Your task to perform on an android device: show emergency info Image 0: 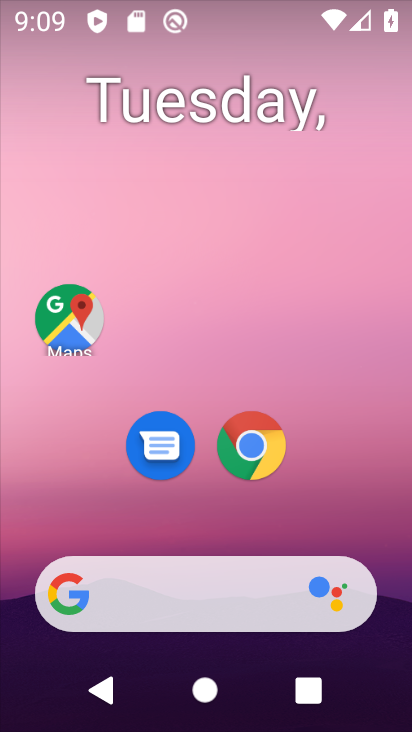
Step 0: drag from (99, 548) to (208, 174)
Your task to perform on an android device: show emergency info Image 1: 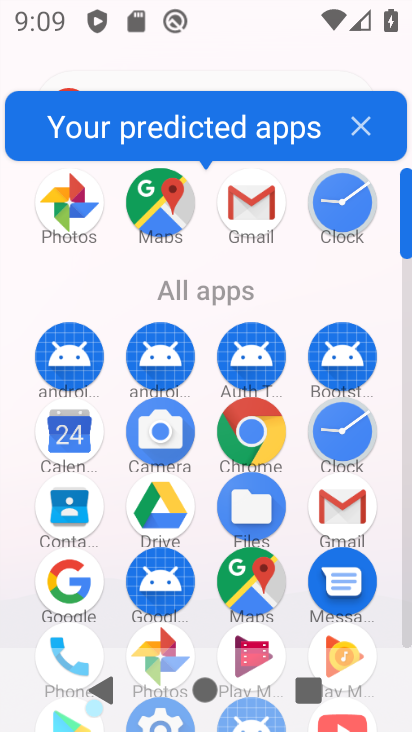
Step 1: drag from (160, 616) to (292, 283)
Your task to perform on an android device: show emergency info Image 2: 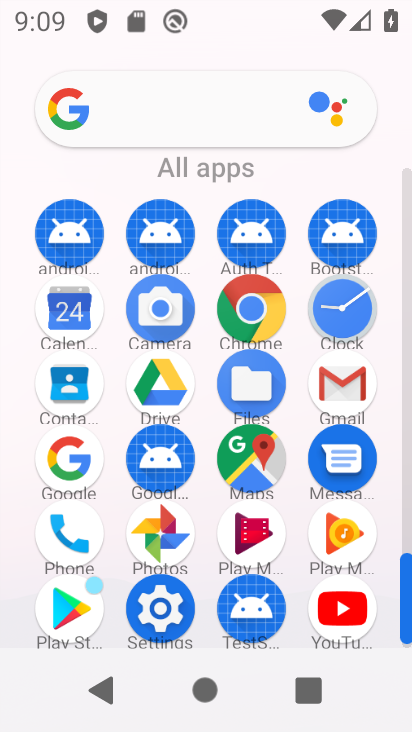
Step 2: click (170, 619)
Your task to perform on an android device: show emergency info Image 3: 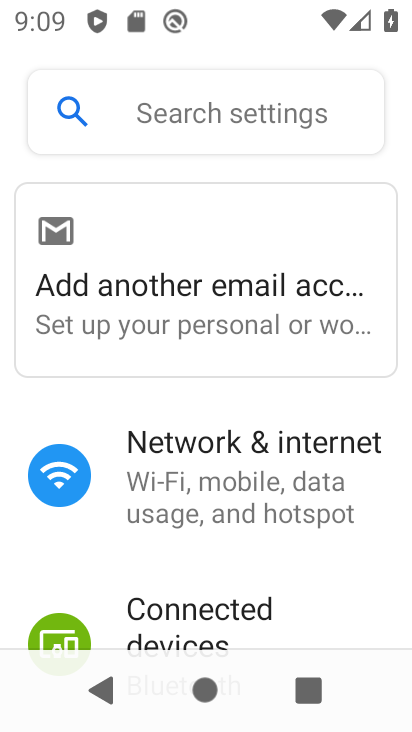
Step 3: drag from (190, 574) to (357, 82)
Your task to perform on an android device: show emergency info Image 4: 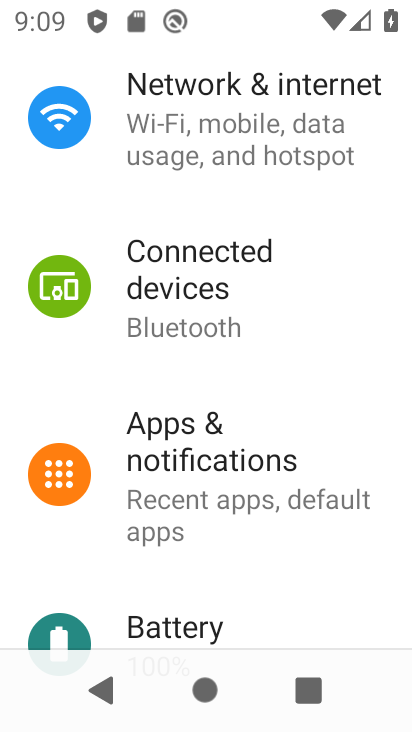
Step 4: drag from (80, 560) to (249, 116)
Your task to perform on an android device: show emergency info Image 5: 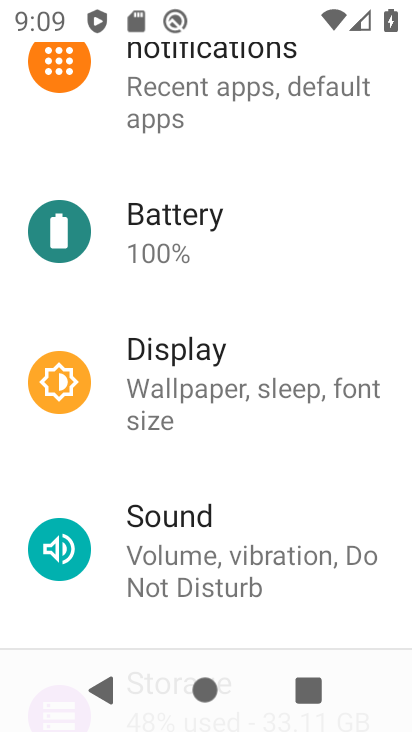
Step 5: drag from (167, 572) to (290, 48)
Your task to perform on an android device: show emergency info Image 6: 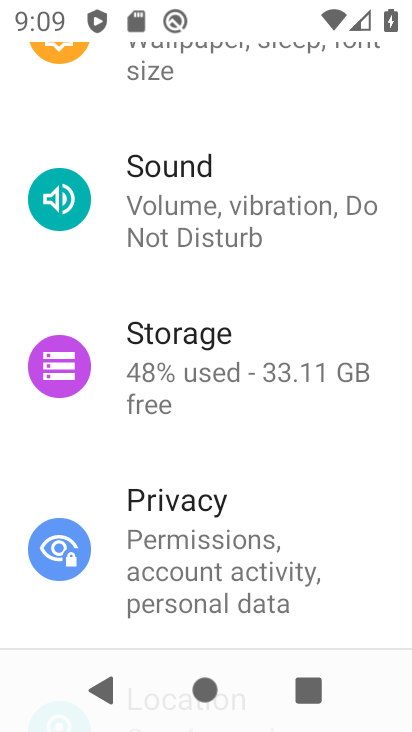
Step 6: drag from (222, 331) to (282, 44)
Your task to perform on an android device: show emergency info Image 7: 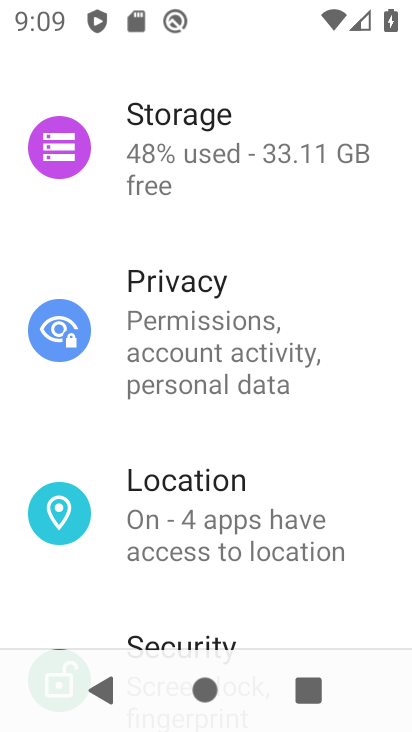
Step 7: drag from (250, 474) to (377, 33)
Your task to perform on an android device: show emergency info Image 8: 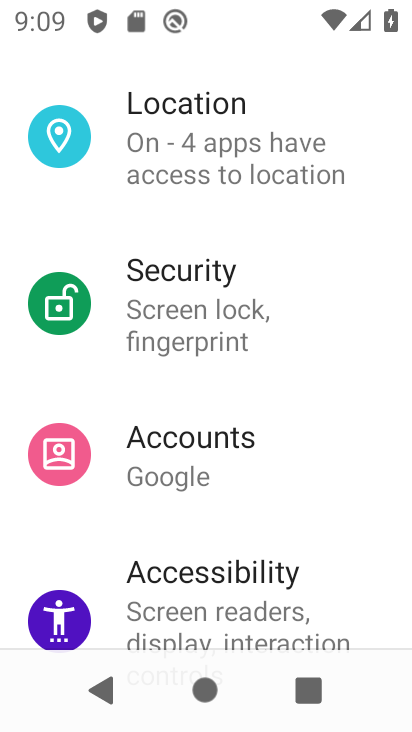
Step 8: drag from (200, 530) to (276, 173)
Your task to perform on an android device: show emergency info Image 9: 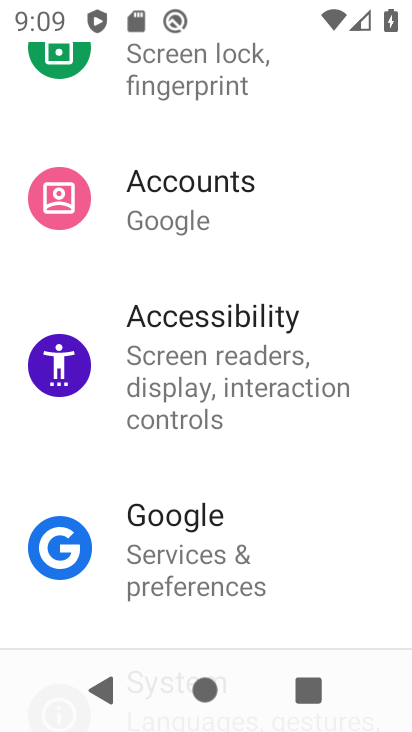
Step 9: drag from (191, 569) to (335, 107)
Your task to perform on an android device: show emergency info Image 10: 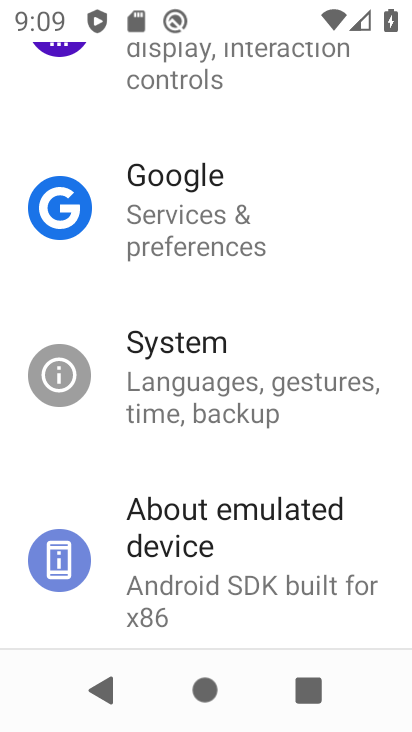
Step 10: click (205, 566)
Your task to perform on an android device: show emergency info Image 11: 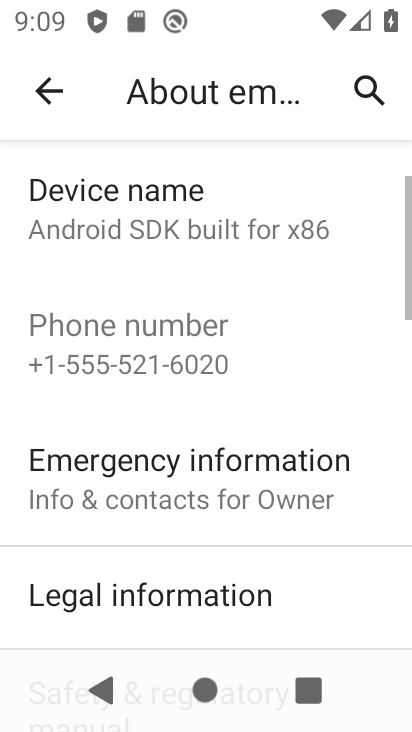
Step 11: click (173, 483)
Your task to perform on an android device: show emergency info Image 12: 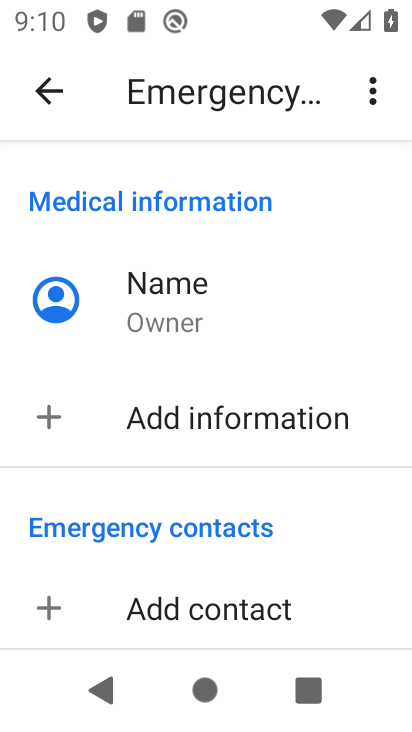
Step 12: task complete